Your task to perform on an android device: What's the news this week? Image 0: 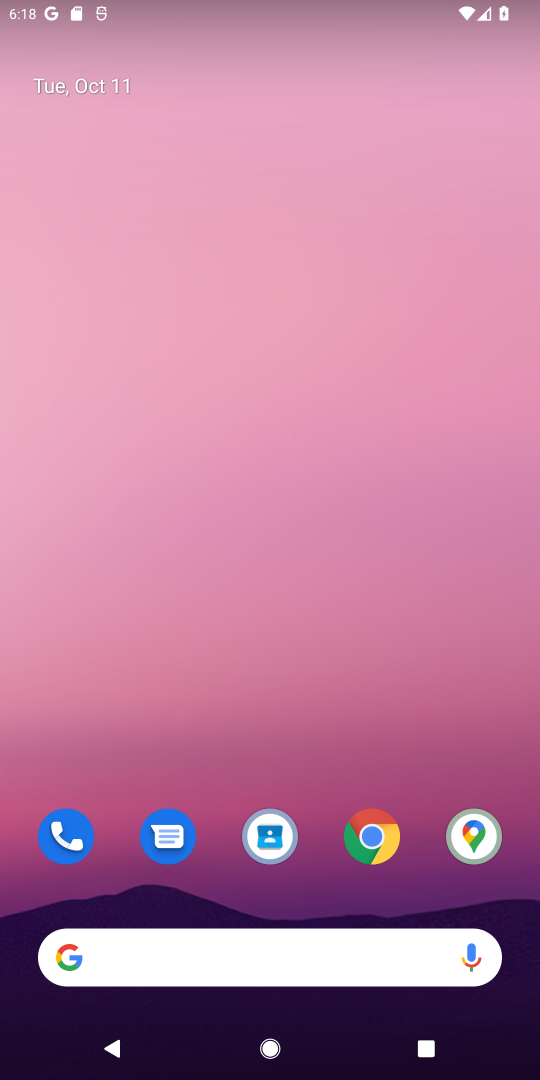
Step 0: click (263, 967)
Your task to perform on an android device: What's the news this week? Image 1: 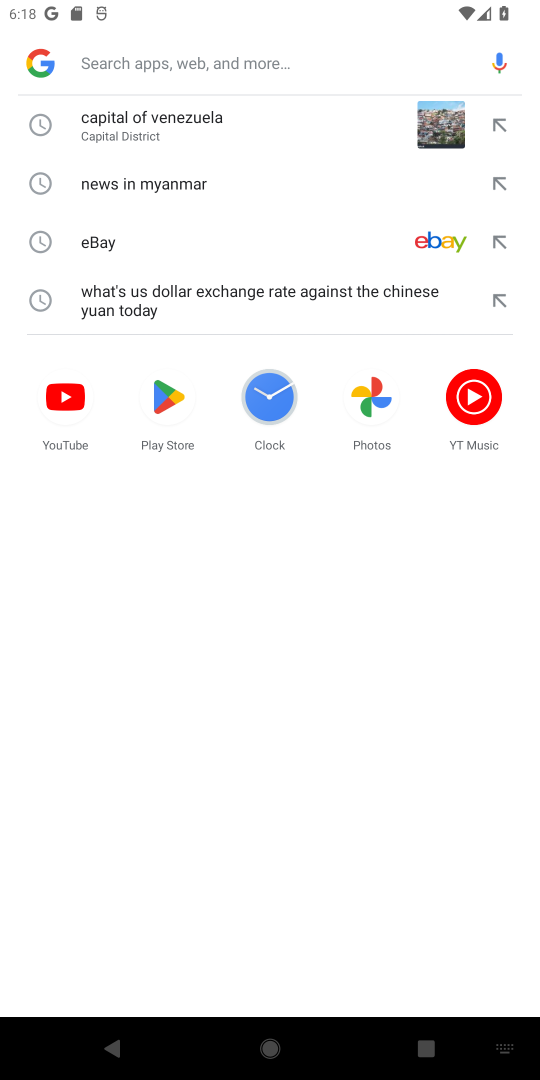
Step 1: type "What's the news this week?"
Your task to perform on an android device: What's the news this week? Image 2: 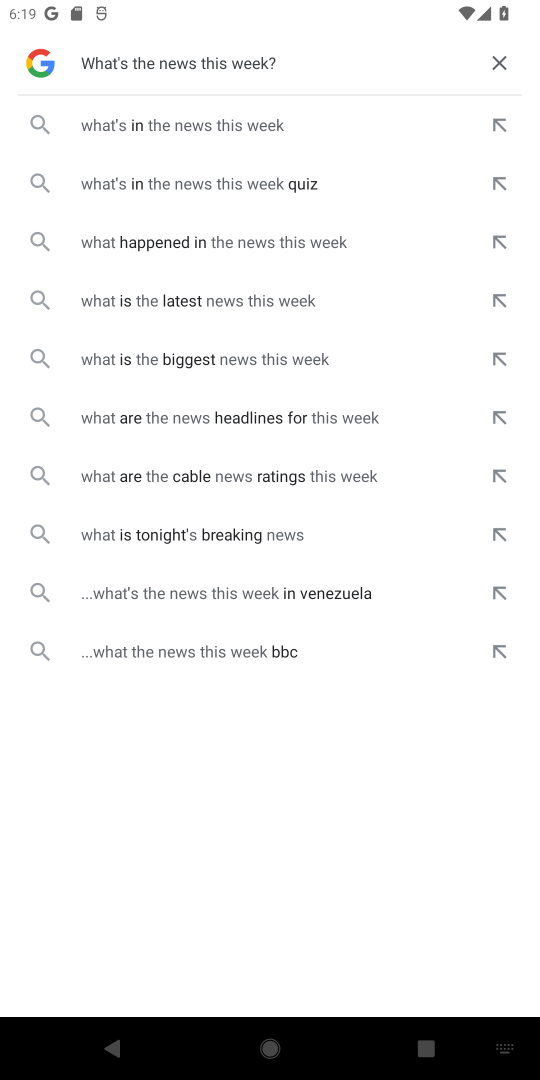
Step 2: task complete